Your task to perform on an android device: find which apps use the phone's location Image 0: 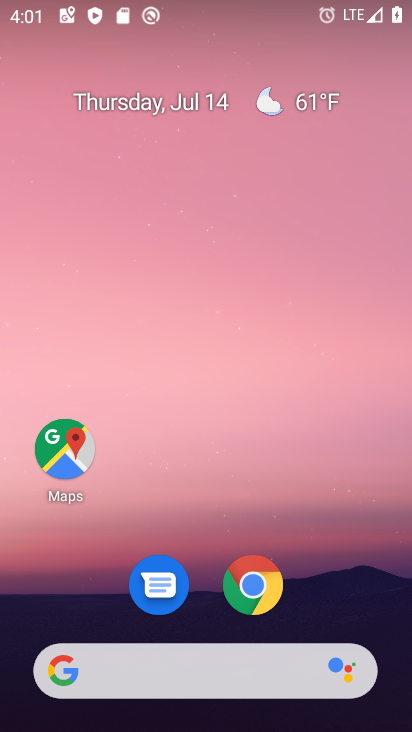
Step 0: drag from (337, 588) to (347, 25)
Your task to perform on an android device: find which apps use the phone's location Image 1: 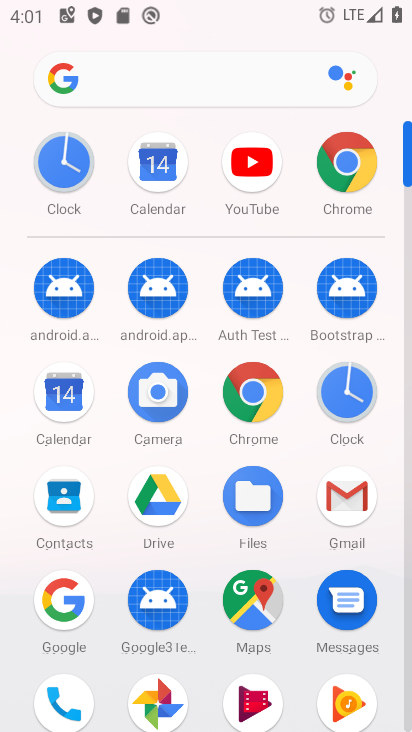
Step 1: drag from (207, 530) to (232, 235)
Your task to perform on an android device: find which apps use the phone's location Image 2: 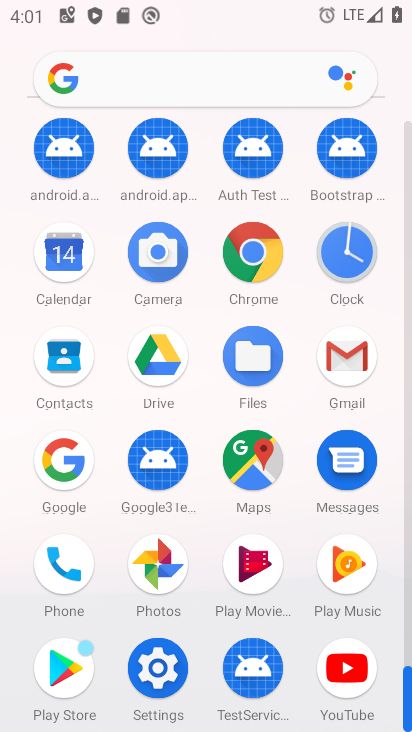
Step 2: click (160, 655)
Your task to perform on an android device: find which apps use the phone's location Image 3: 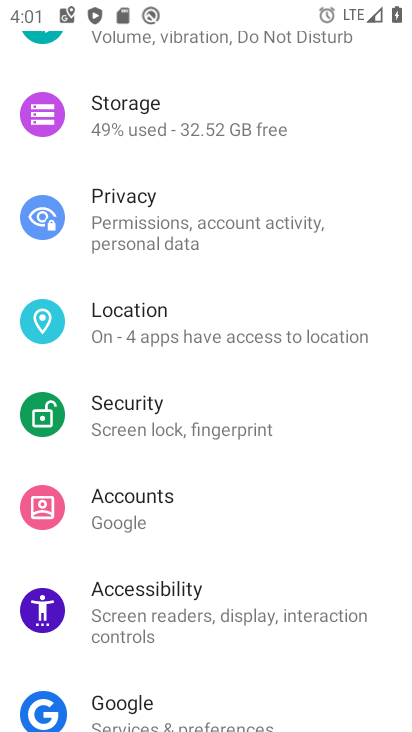
Step 3: click (255, 326)
Your task to perform on an android device: find which apps use the phone's location Image 4: 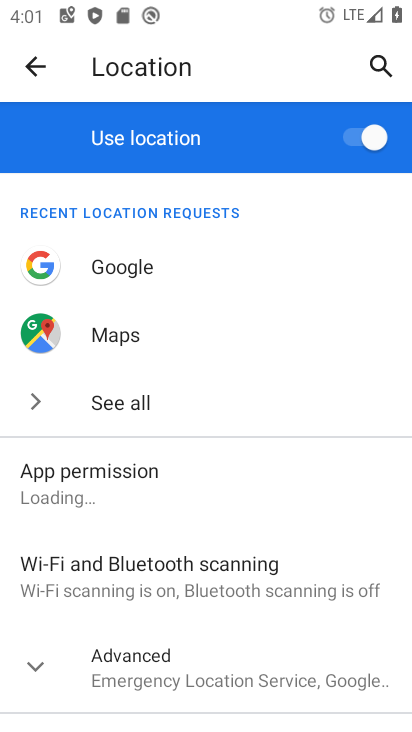
Step 4: click (131, 485)
Your task to perform on an android device: find which apps use the phone's location Image 5: 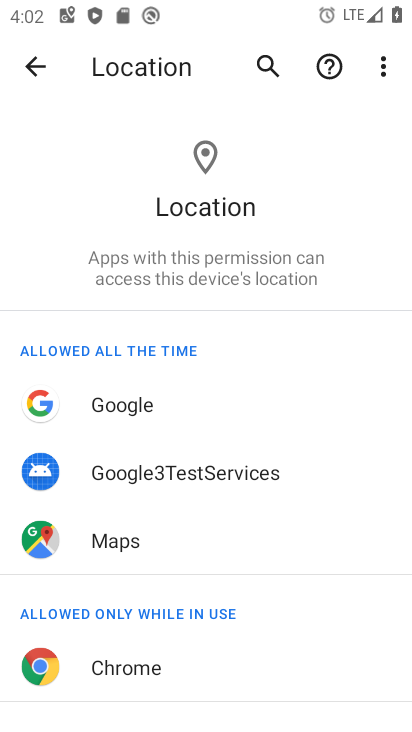
Step 5: task complete